Your task to perform on an android device: empty trash in the gmail app Image 0: 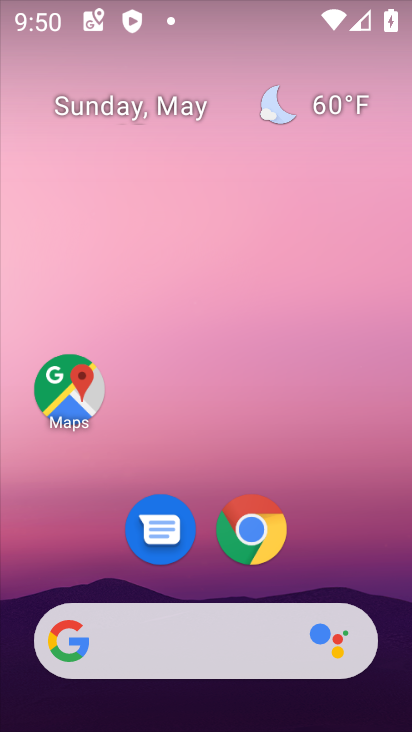
Step 0: drag from (392, 576) to (368, 266)
Your task to perform on an android device: empty trash in the gmail app Image 1: 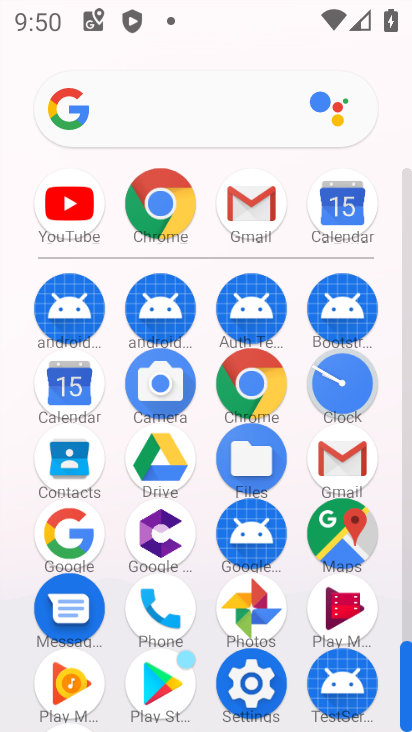
Step 1: click (337, 464)
Your task to perform on an android device: empty trash in the gmail app Image 2: 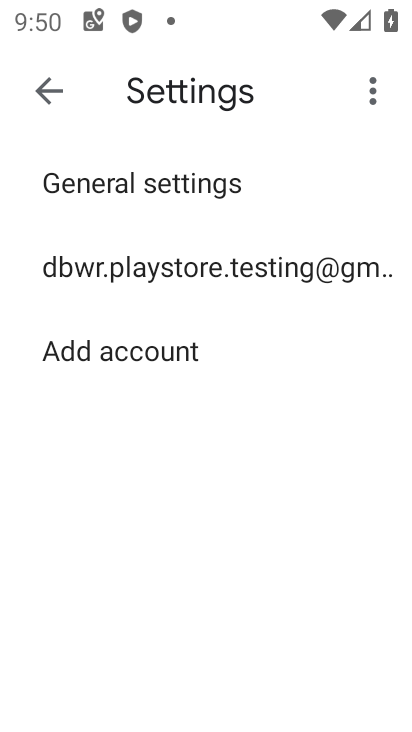
Step 2: click (55, 87)
Your task to perform on an android device: empty trash in the gmail app Image 3: 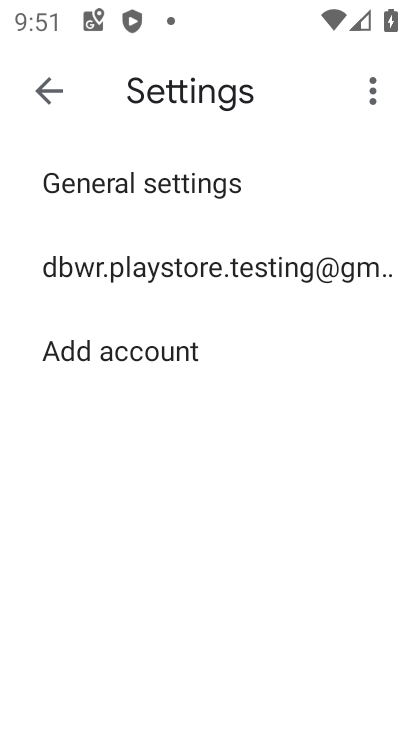
Step 3: click (44, 85)
Your task to perform on an android device: empty trash in the gmail app Image 4: 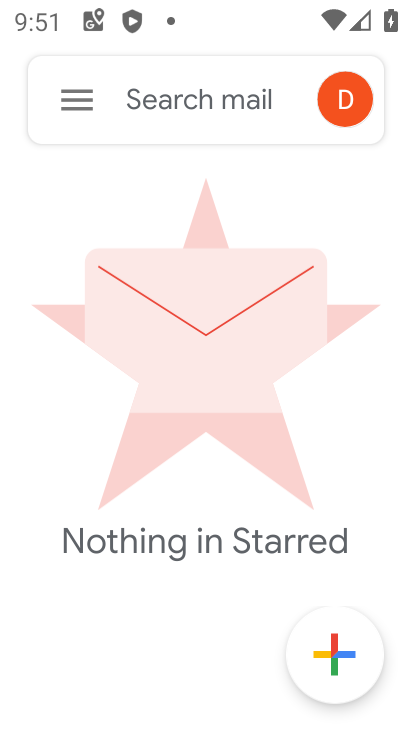
Step 4: click (70, 96)
Your task to perform on an android device: empty trash in the gmail app Image 5: 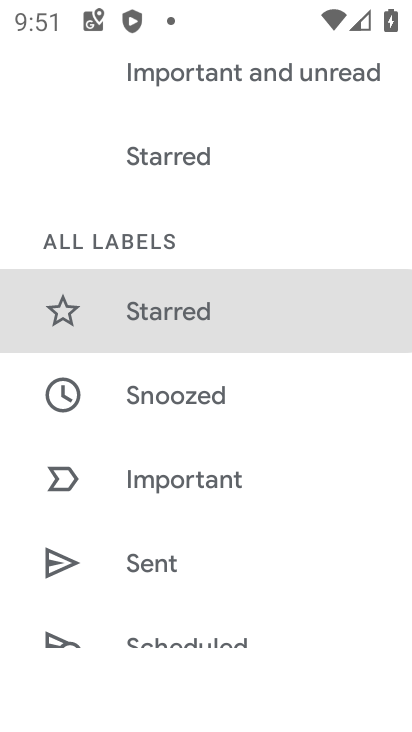
Step 5: drag from (327, 562) to (325, 424)
Your task to perform on an android device: empty trash in the gmail app Image 6: 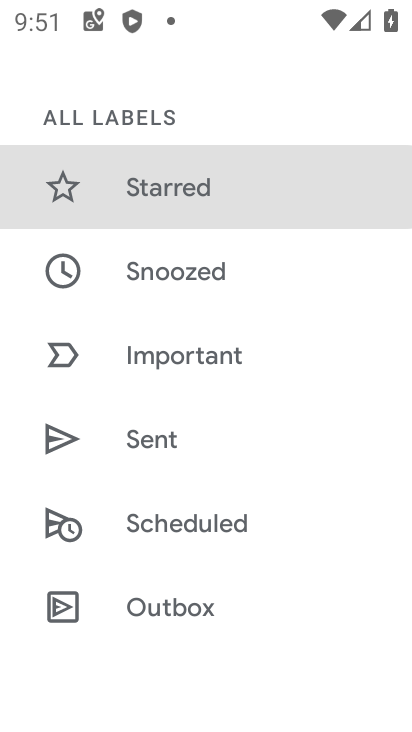
Step 6: drag from (339, 511) to (322, 428)
Your task to perform on an android device: empty trash in the gmail app Image 7: 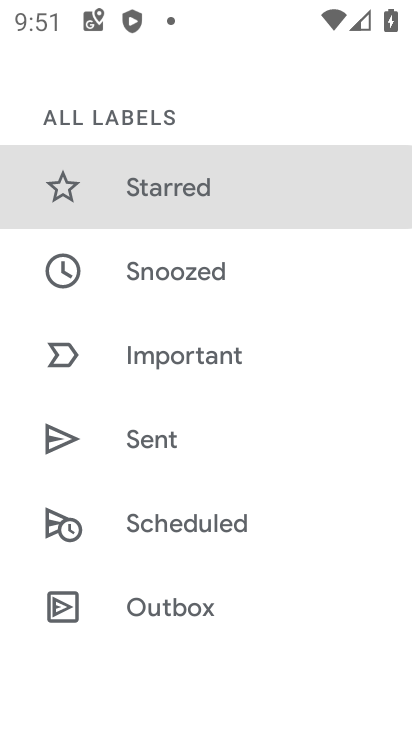
Step 7: drag from (327, 589) to (316, 427)
Your task to perform on an android device: empty trash in the gmail app Image 8: 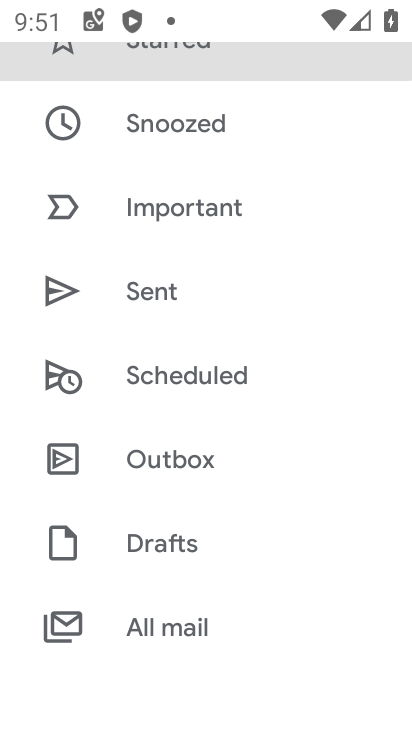
Step 8: drag from (305, 611) to (310, 416)
Your task to perform on an android device: empty trash in the gmail app Image 9: 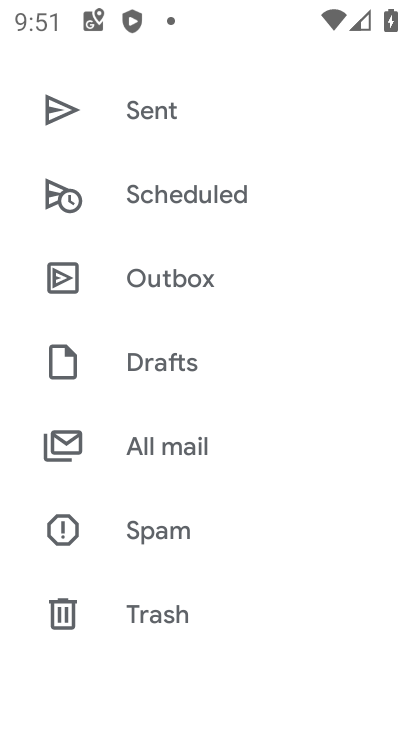
Step 9: drag from (307, 590) to (319, 430)
Your task to perform on an android device: empty trash in the gmail app Image 10: 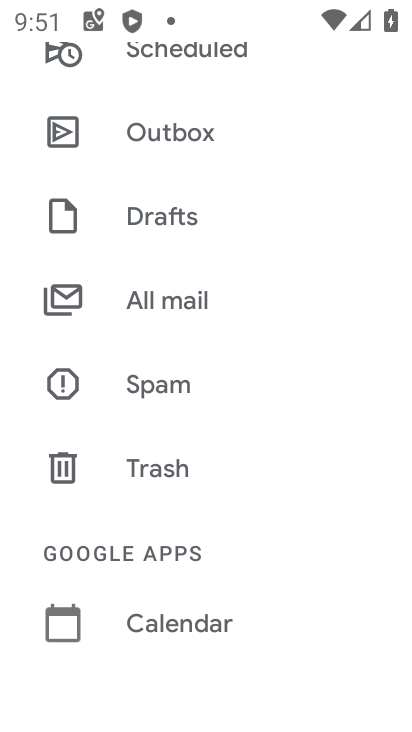
Step 10: click (175, 462)
Your task to perform on an android device: empty trash in the gmail app Image 11: 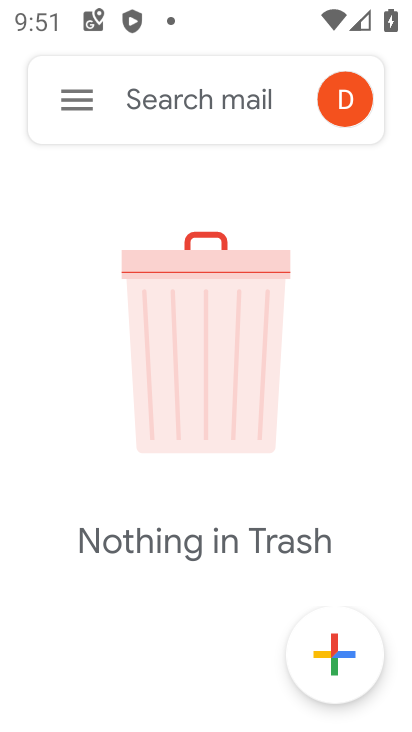
Step 11: task complete